Your task to perform on an android device: Play the last video I watched on Youtube Image 0: 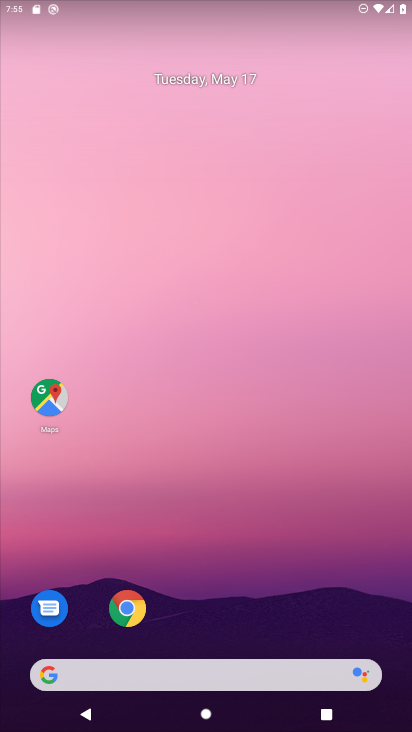
Step 0: drag from (201, 612) to (313, 2)
Your task to perform on an android device: Play the last video I watched on Youtube Image 1: 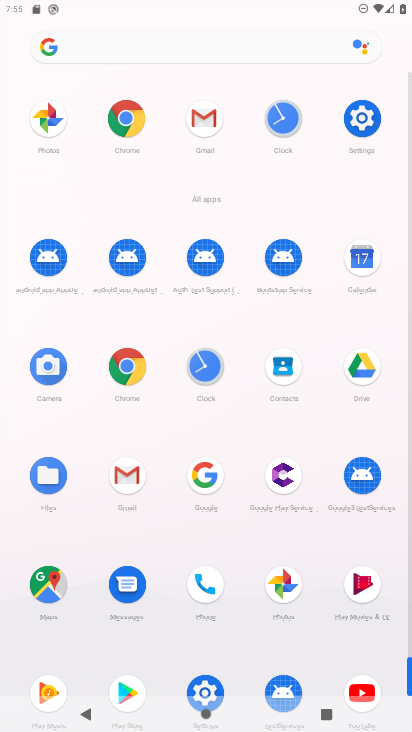
Step 1: drag from (263, 628) to (288, 486)
Your task to perform on an android device: Play the last video I watched on Youtube Image 2: 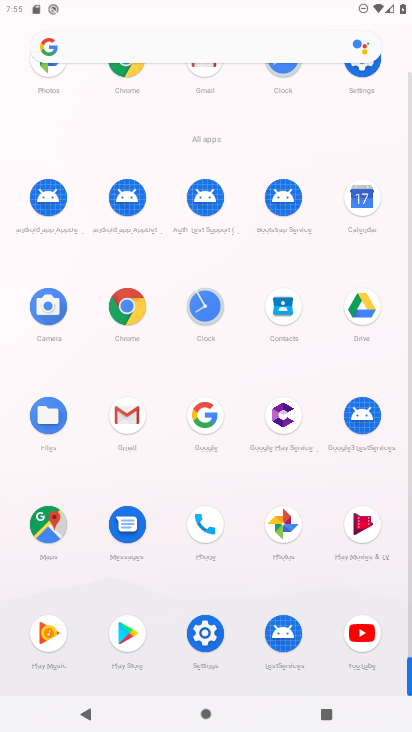
Step 2: click (363, 636)
Your task to perform on an android device: Play the last video I watched on Youtube Image 3: 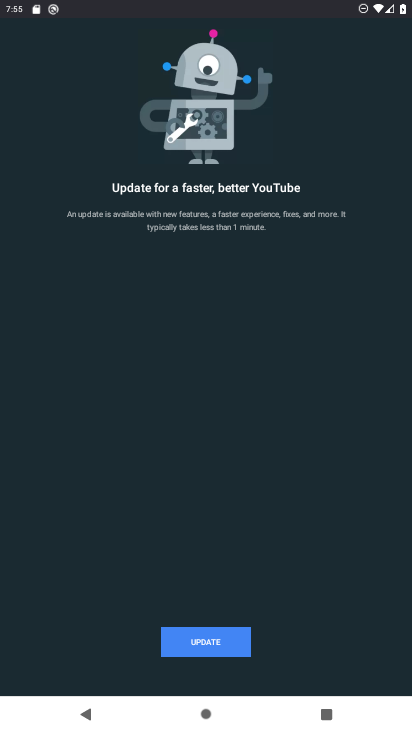
Step 3: click (221, 642)
Your task to perform on an android device: Play the last video I watched on Youtube Image 4: 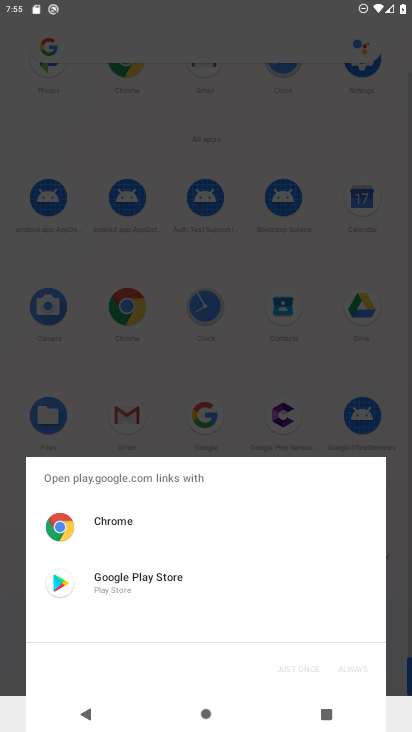
Step 4: click (124, 578)
Your task to perform on an android device: Play the last video I watched on Youtube Image 5: 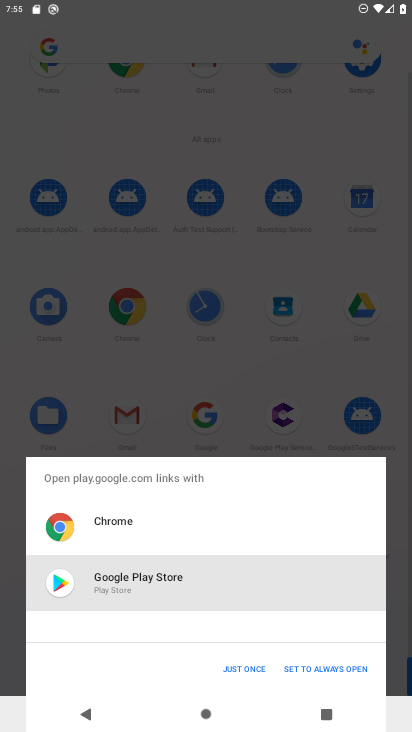
Step 5: click (244, 668)
Your task to perform on an android device: Play the last video I watched on Youtube Image 6: 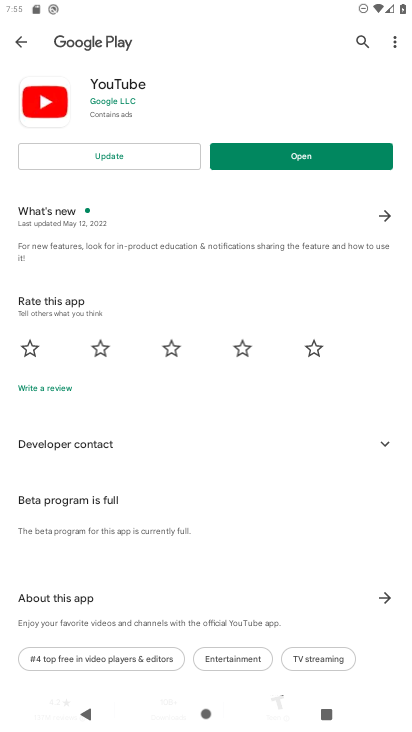
Step 6: click (113, 159)
Your task to perform on an android device: Play the last video I watched on Youtube Image 7: 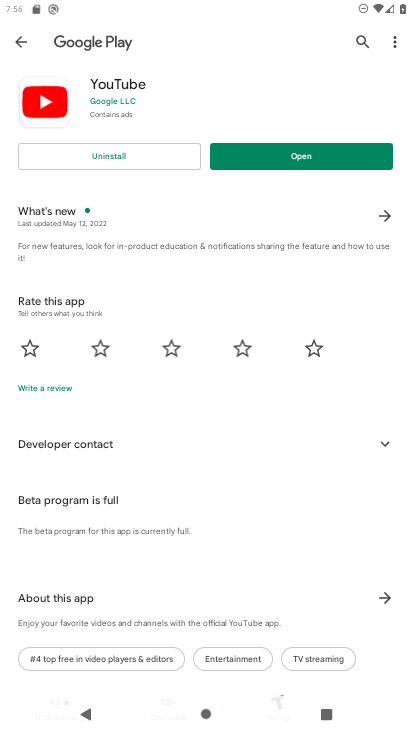
Step 7: click (343, 162)
Your task to perform on an android device: Play the last video I watched on Youtube Image 8: 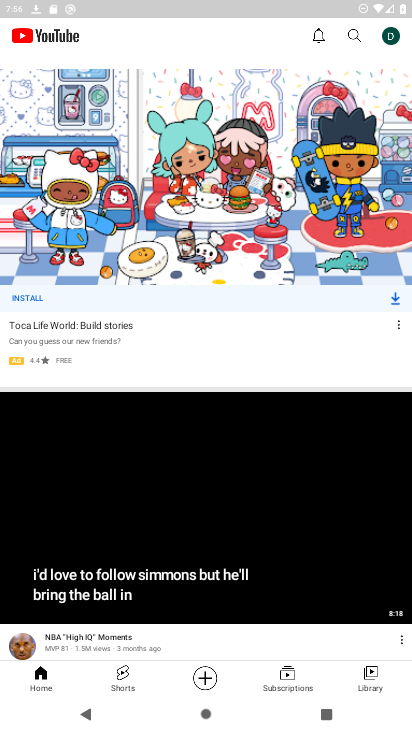
Step 8: click (375, 673)
Your task to perform on an android device: Play the last video I watched on Youtube Image 9: 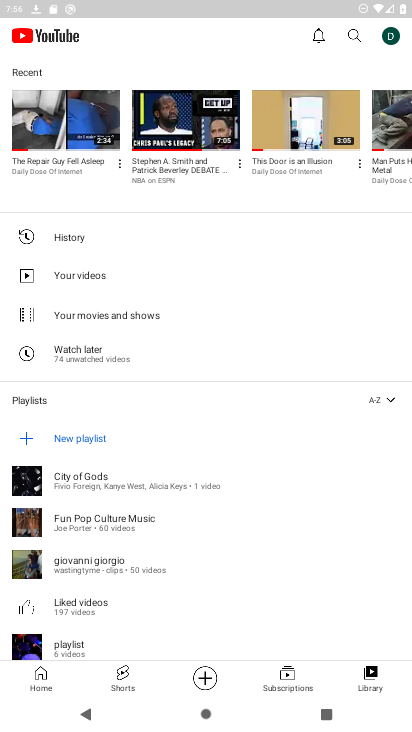
Step 9: click (71, 136)
Your task to perform on an android device: Play the last video I watched on Youtube Image 10: 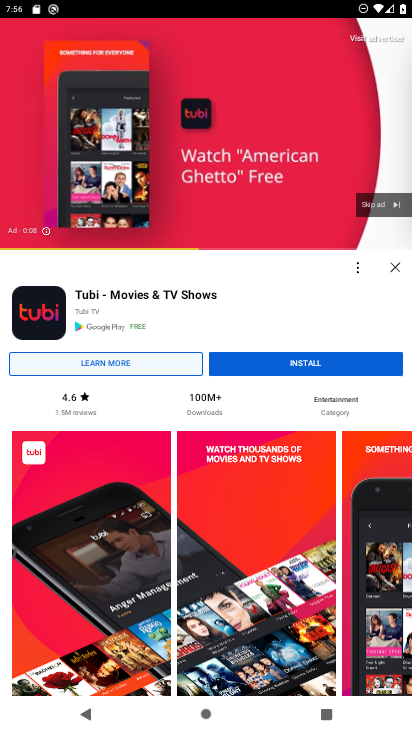
Step 10: click (386, 204)
Your task to perform on an android device: Play the last video I watched on Youtube Image 11: 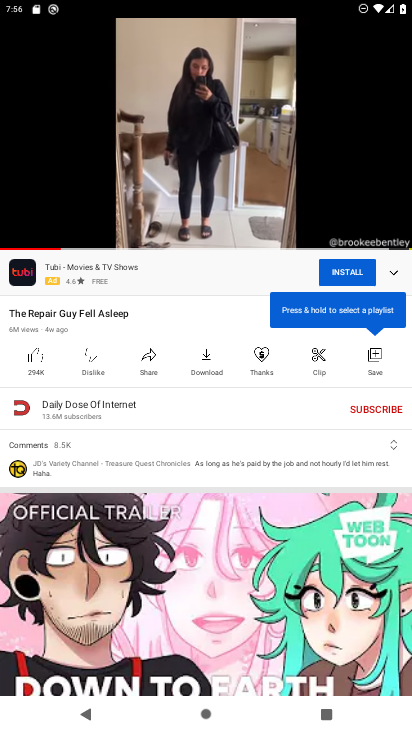
Step 11: task complete